Your task to perform on an android device: change the clock display to digital Image 0: 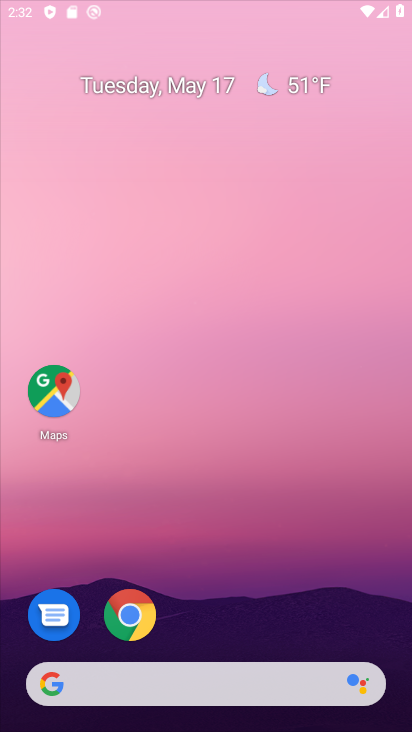
Step 0: press home button
Your task to perform on an android device: change the clock display to digital Image 1: 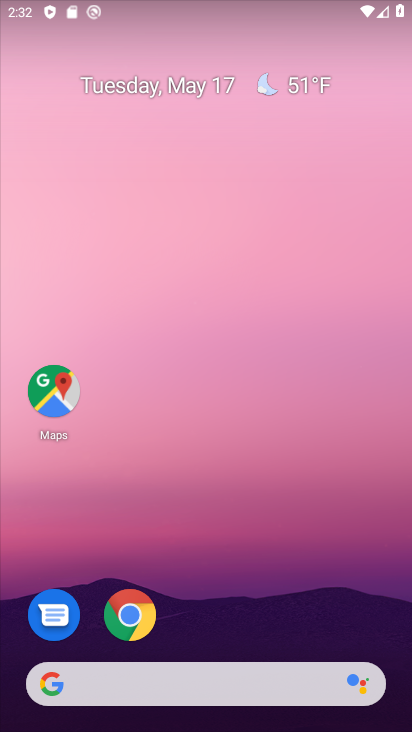
Step 1: drag from (214, 638) to (217, 72)
Your task to perform on an android device: change the clock display to digital Image 2: 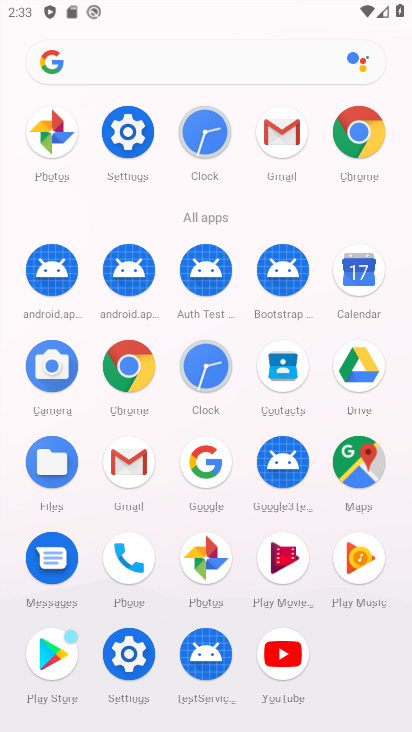
Step 2: click (207, 363)
Your task to perform on an android device: change the clock display to digital Image 3: 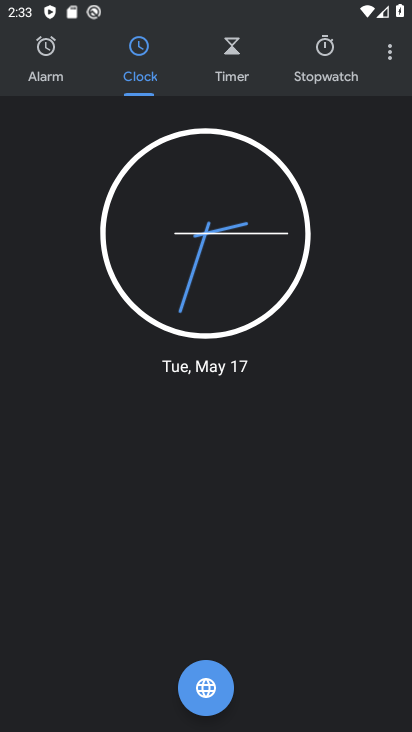
Step 3: click (384, 54)
Your task to perform on an android device: change the clock display to digital Image 4: 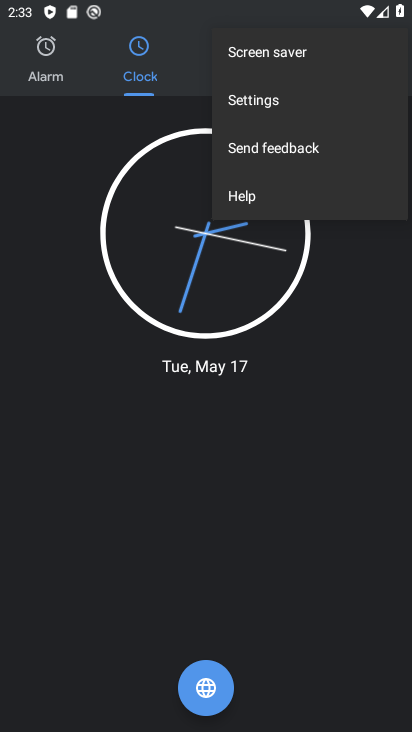
Step 4: click (276, 98)
Your task to perform on an android device: change the clock display to digital Image 5: 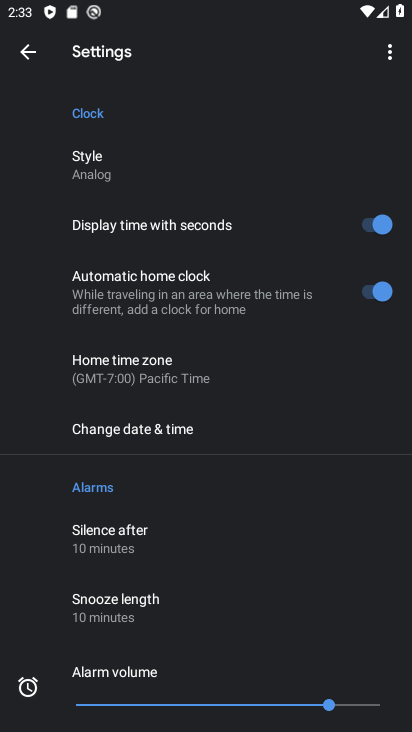
Step 5: click (129, 160)
Your task to perform on an android device: change the clock display to digital Image 6: 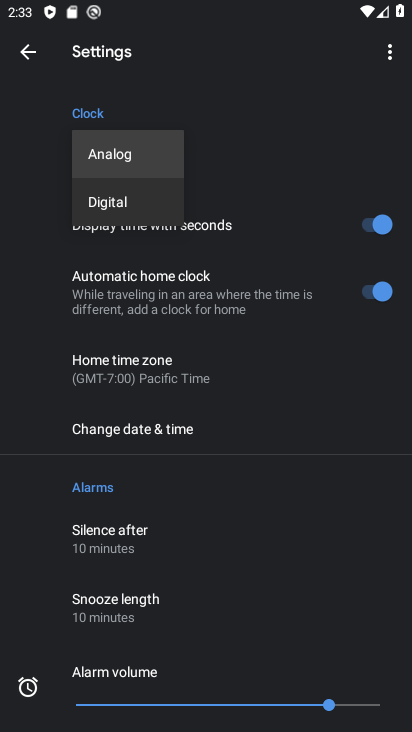
Step 6: click (138, 198)
Your task to perform on an android device: change the clock display to digital Image 7: 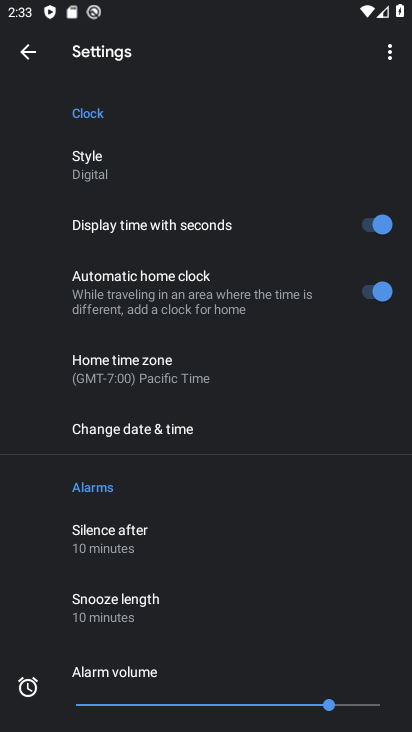
Step 7: task complete